Your task to perform on an android device: Search for sushi restaurants on Maps Image 0: 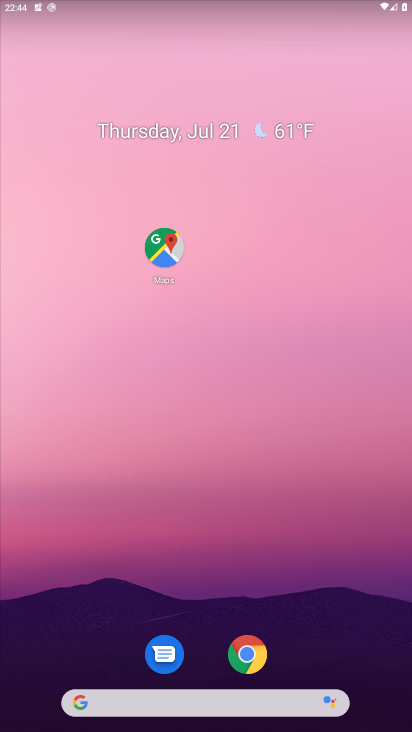
Step 0: click (173, 244)
Your task to perform on an android device: Search for sushi restaurants on Maps Image 1: 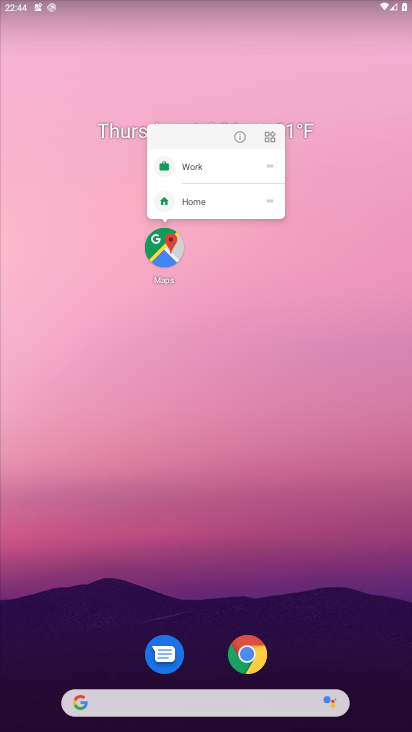
Step 1: click (170, 247)
Your task to perform on an android device: Search for sushi restaurants on Maps Image 2: 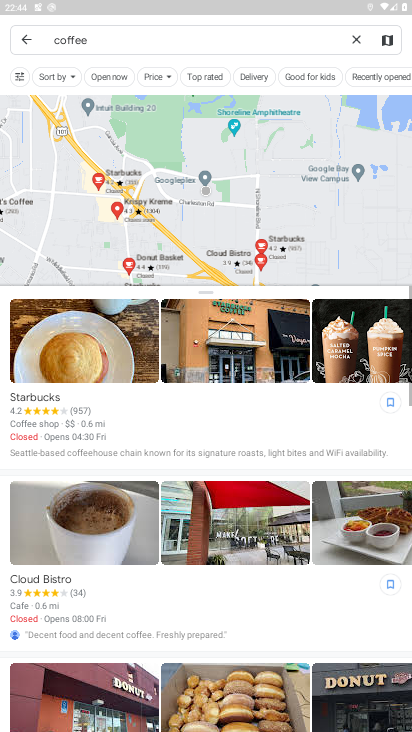
Step 2: click (25, 33)
Your task to perform on an android device: Search for sushi restaurants on Maps Image 3: 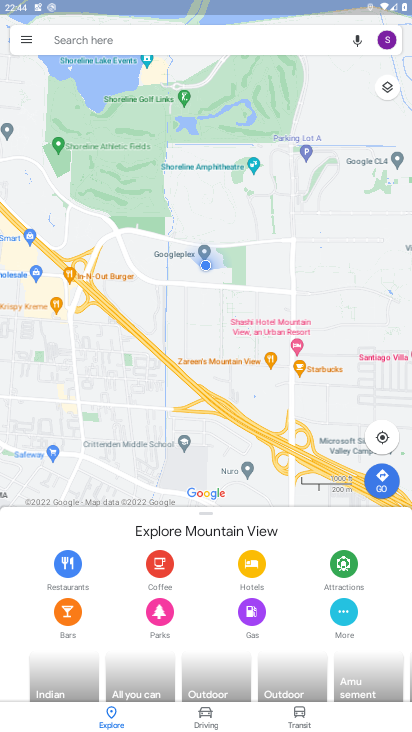
Step 3: click (88, 41)
Your task to perform on an android device: Search for sushi restaurants on Maps Image 4: 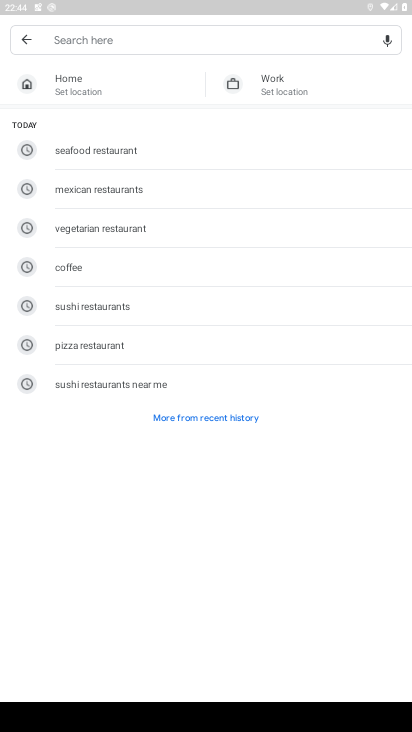
Step 4: click (119, 311)
Your task to perform on an android device: Search for sushi restaurants on Maps Image 5: 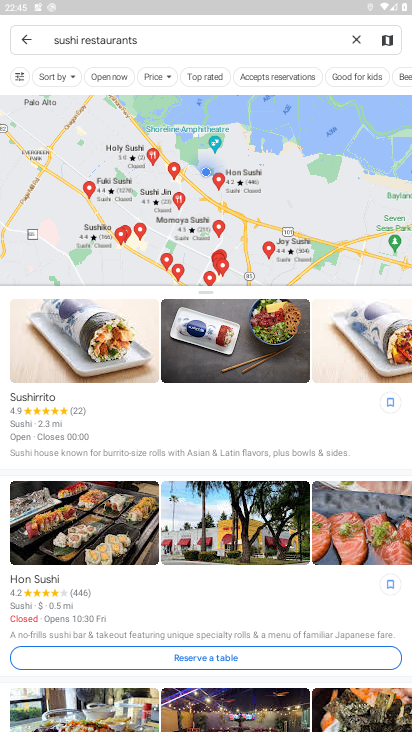
Step 5: task complete